Your task to perform on an android device: Open Chrome and go to settings Image 0: 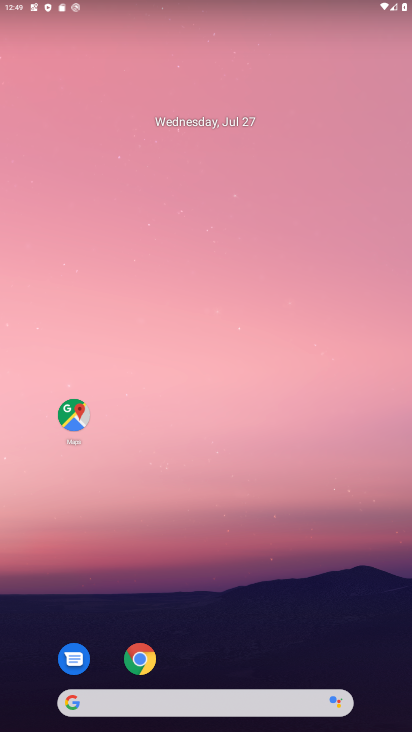
Step 0: click (143, 653)
Your task to perform on an android device: Open Chrome and go to settings Image 1: 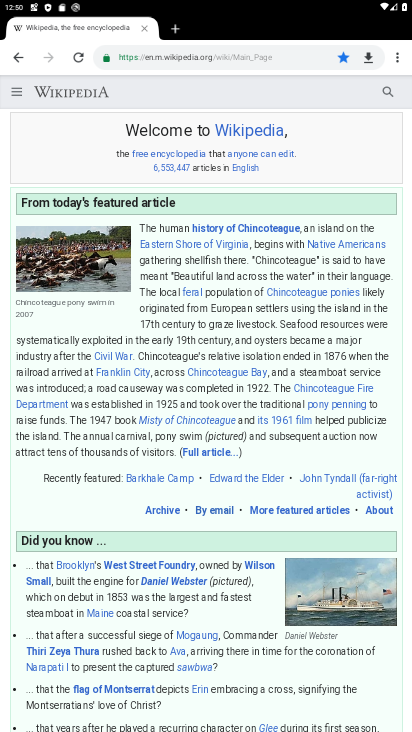
Step 1: click (400, 48)
Your task to perform on an android device: Open Chrome and go to settings Image 2: 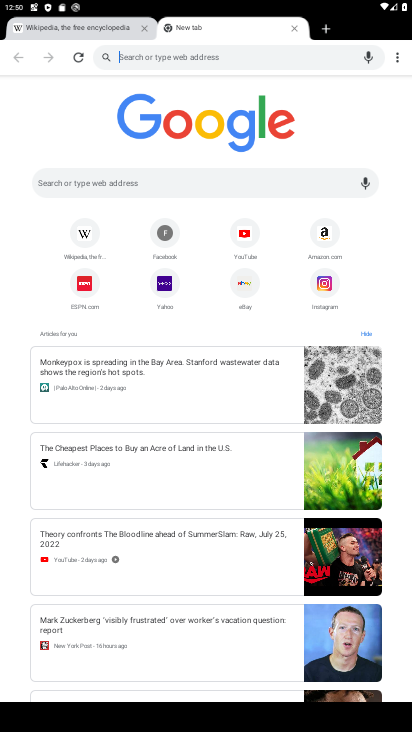
Step 2: click (397, 59)
Your task to perform on an android device: Open Chrome and go to settings Image 3: 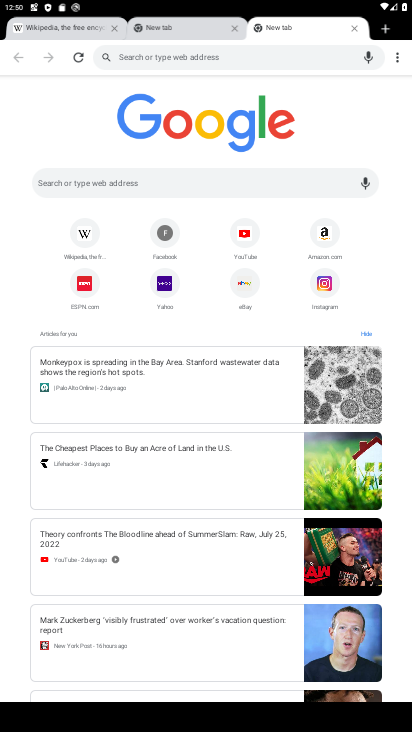
Step 3: click (112, 26)
Your task to perform on an android device: Open Chrome and go to settings Image 4: 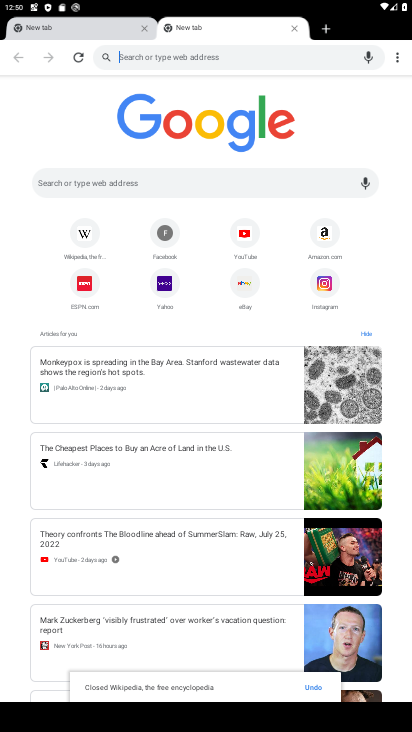
Step 4: click (112, 26)
Your task to perform on an android device: Open Chrome and go to settings Image 5: 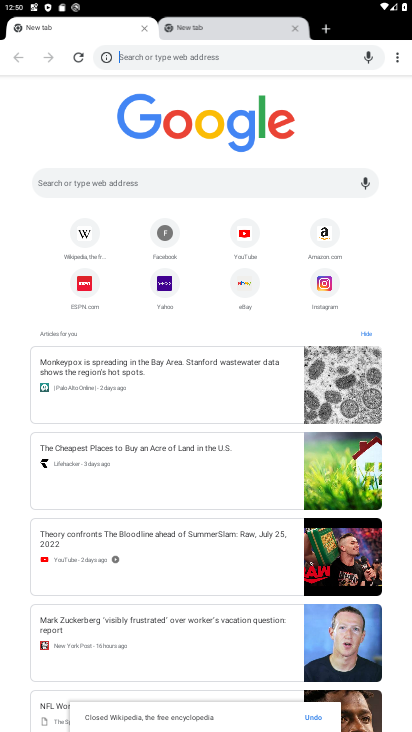
Step 5: click (143, 30)
Your task to perform on an android device: Open Chrome and go to settings Image 6: 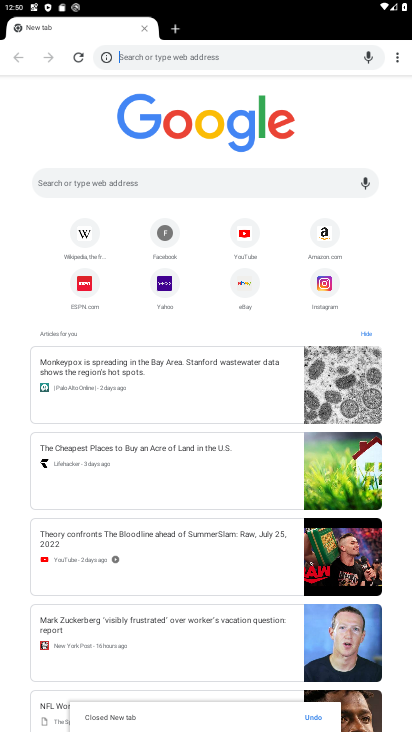
Step 6: click (399, 56)
Your task to perform on an android device: Open Chrome and go to settings Image 7: 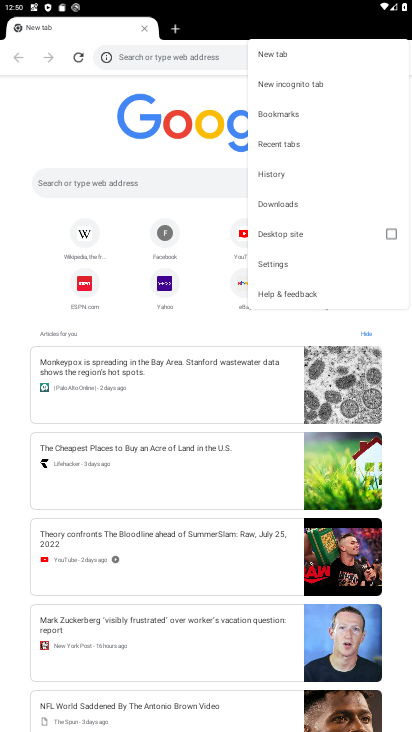
Step 7: click (273, 258)
Your task to perform on an android device: Open Chrome and go to settings Image 8: 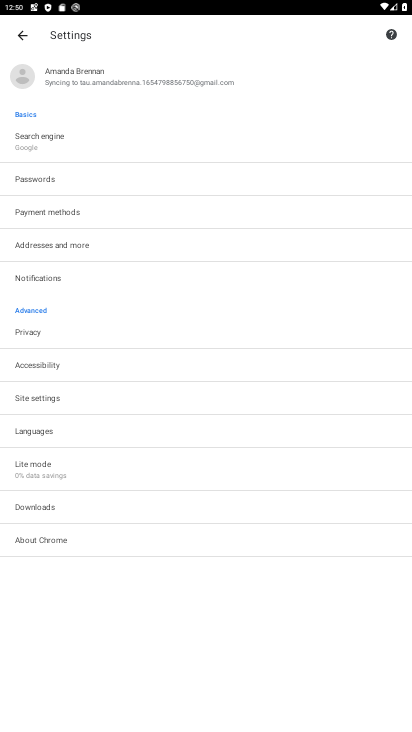
Step 8: task complete